Your task to perform on an android device: What's the weather going to be tomorrow? Image 0: 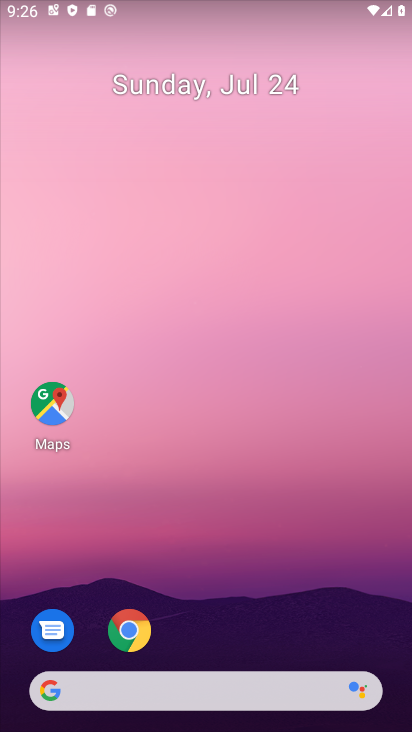
Step 0: drag from (197, 654) to (139, 171)
Your task to perform on an android device: What's the weather going to be tomorrow? Image 1: 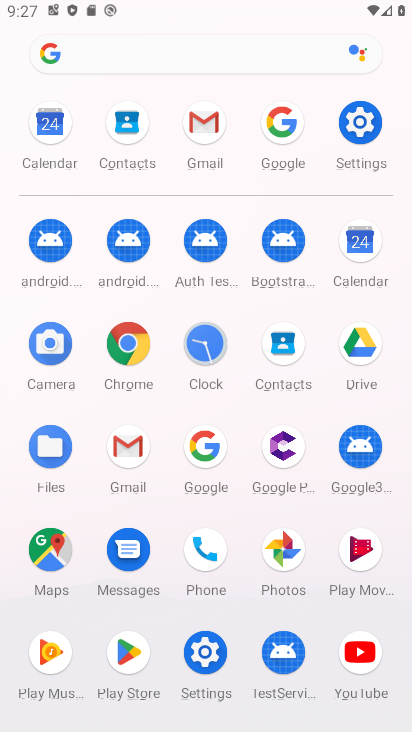
Step 1: click (210, 447)
Your task to perform on an android device: What's the weather going to be tomorrow? Image 2: 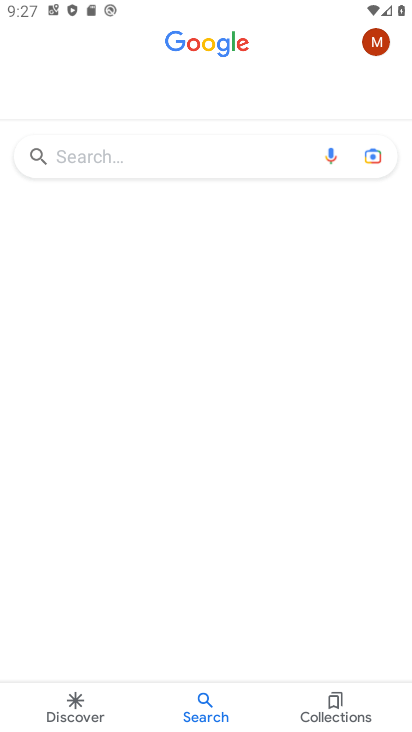
Step 2: click (62, 163)
Your task to perform on an android device: What's the weather going to be tomorrow? Image 3: 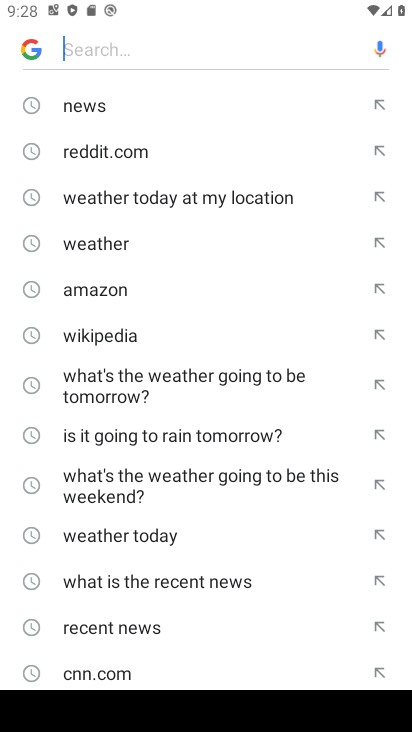
Step 3: type "weather"
Your task to perform on an android device: What's the weather going to be tomorrow? Image 4: 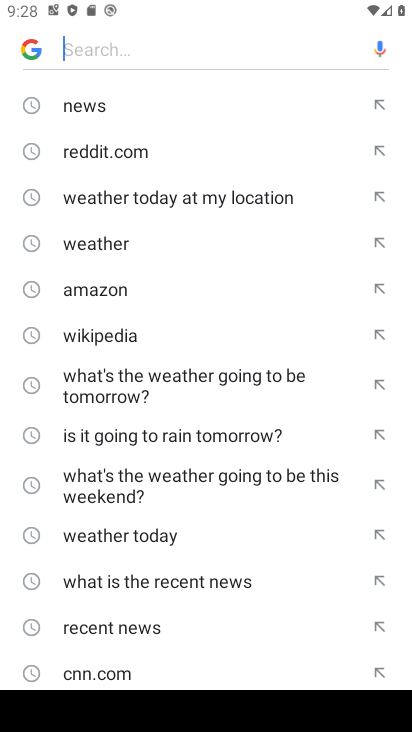
Step 4: click (145, 241)
Your task to perform on an android device: What's the weather going to be tomorrow? Image 5: 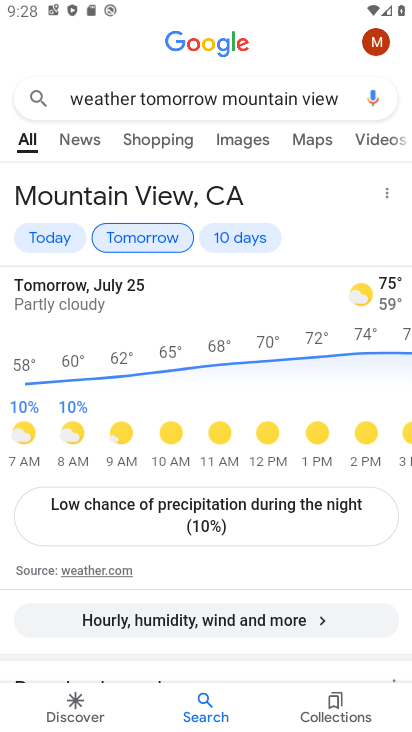
Step 5: task complete